Your task to perform on an android device: Is it going to rain this weekend? Image 0: 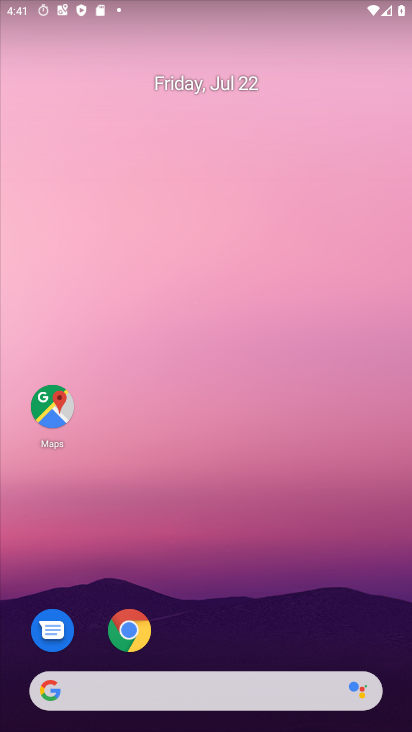
Step 0: drag from (222, 675) to (211, 29)
Your task to perform on an android device: Is it going to rain this weekend? Image 1: 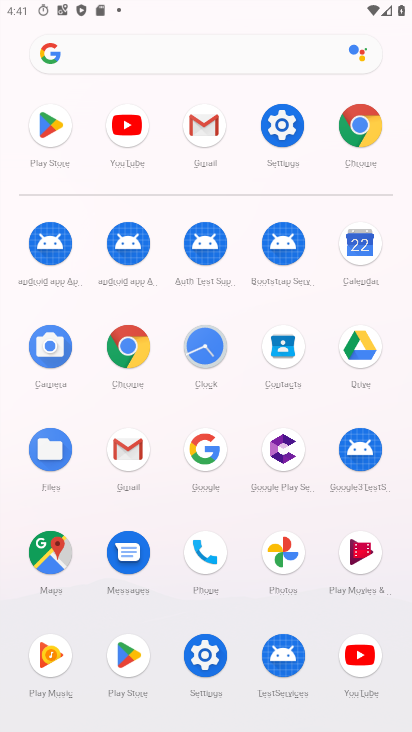
Step 1: click (112, 342)
Your task to perform on an android device: Is it going to rain this weekend? Image 2: 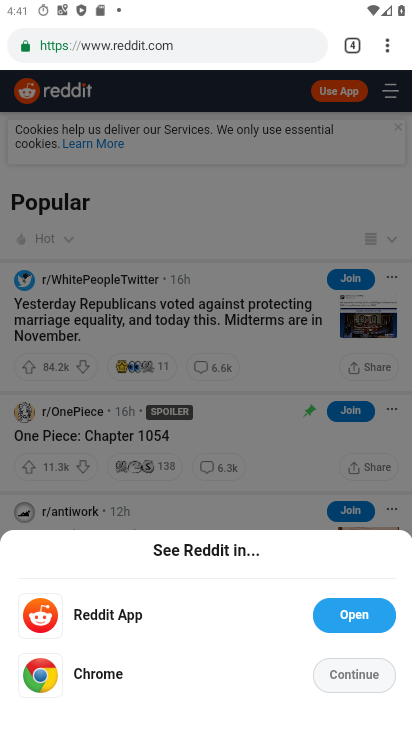
Step 2: click (188, 47)
Your task to perform on an android device: Is it going to rain this weekend? Image 3: 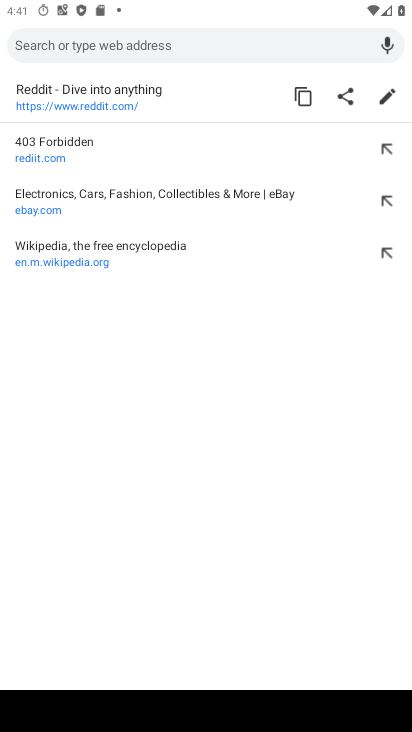
Step 3: type "is going to rain this weekend"
Your task to perform on an android device: Is it going to rain this weekend? Image 4: 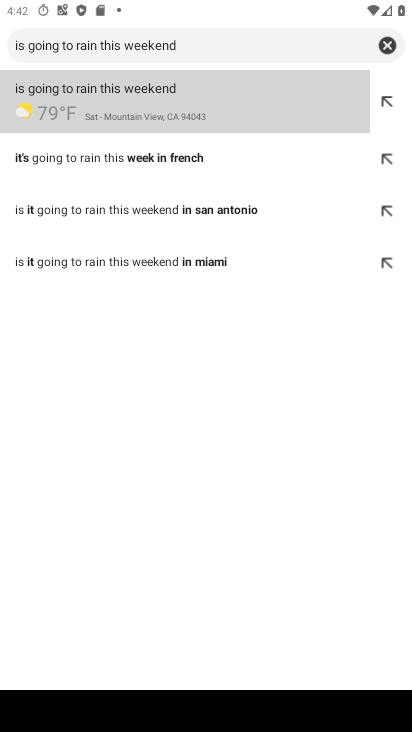
Step 4: click (133, 115)
Your task to perform on an android device: Is it going to rain this weekend? Image 5: 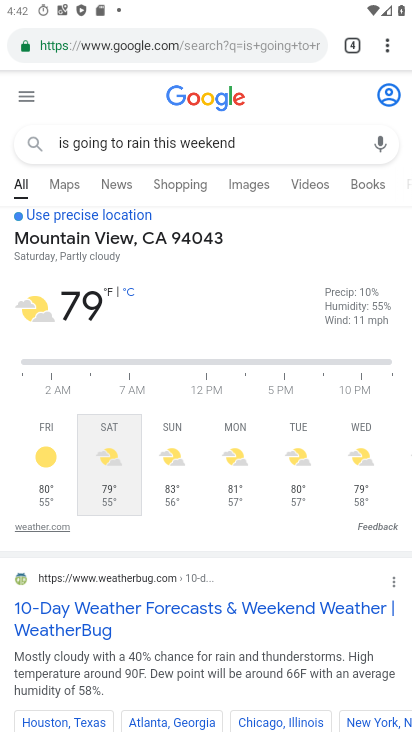
Step 5: task complete